Your task to perform on an android device: change the clock display to show seconds Image 0: 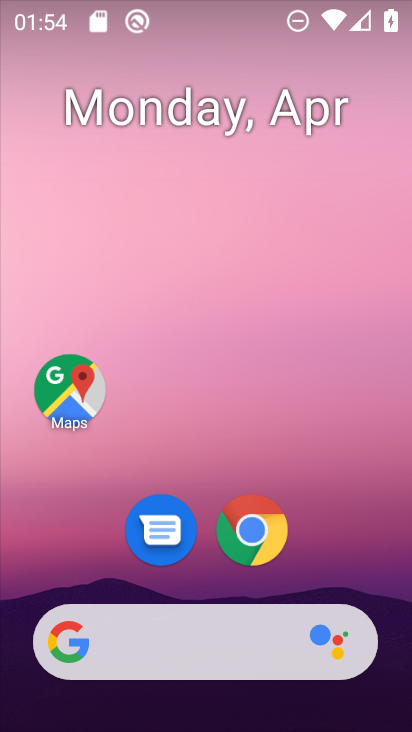
Step 0: drag from (319, 447) to (267, 50)
Your task to perform on an android device: change the clock display to show seconds Image 1: 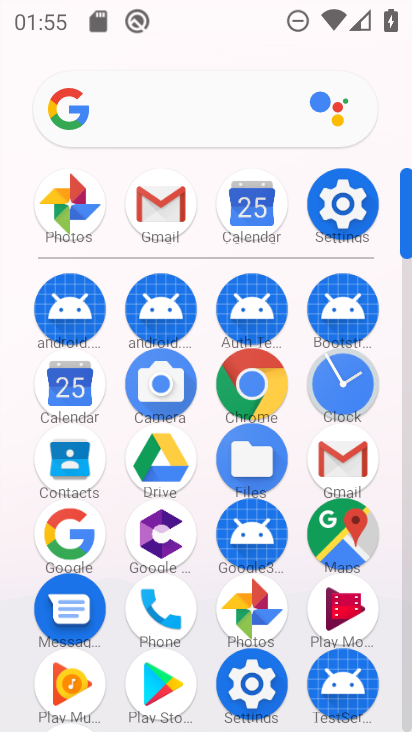
Step 1: click (267, 268)
Your task to perform on an android device: change the clock display to show seconds Image 2: 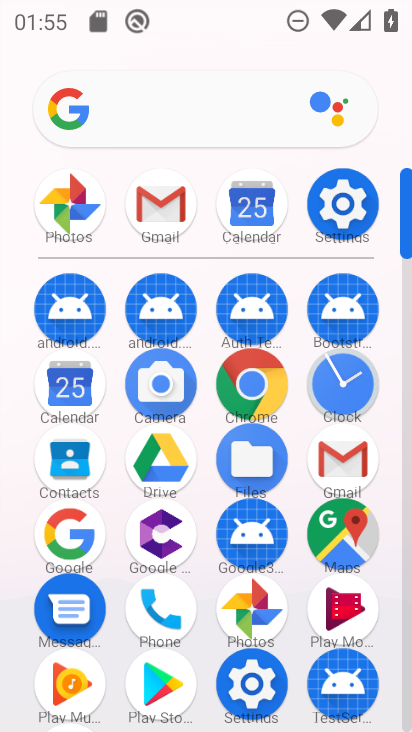
Step 2: click (339, 387)
Your task to perform on an android device: change the clock display to show seconds Image 3: 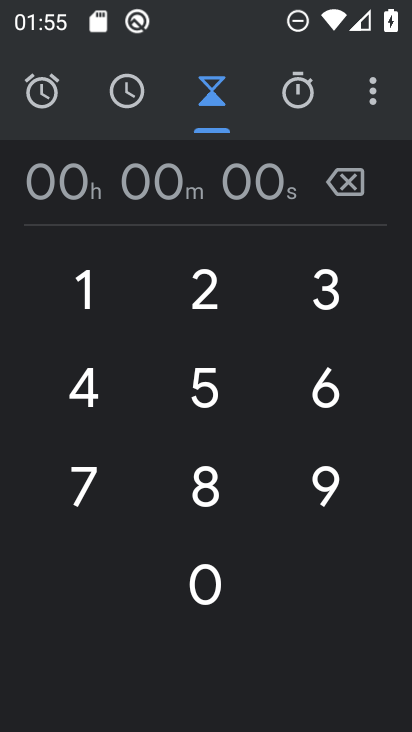
Step 3: click (370, 102)
Your task to perform on an android device: change the clock display to show seconds Image 4: 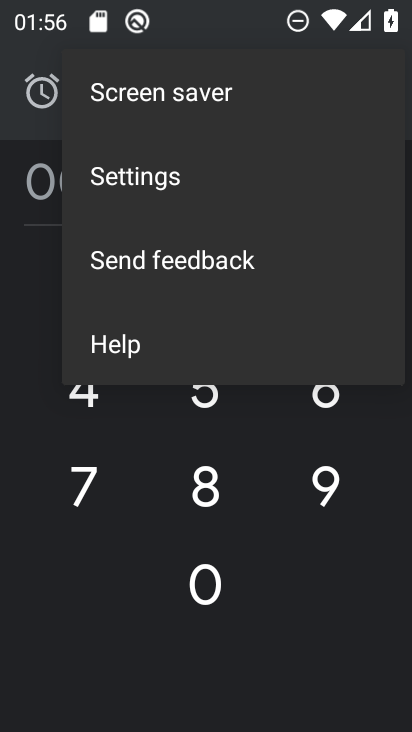
Step 4: click (149, 170)
Your task to perform on an android device: change the clock display to show seconds Image 5: 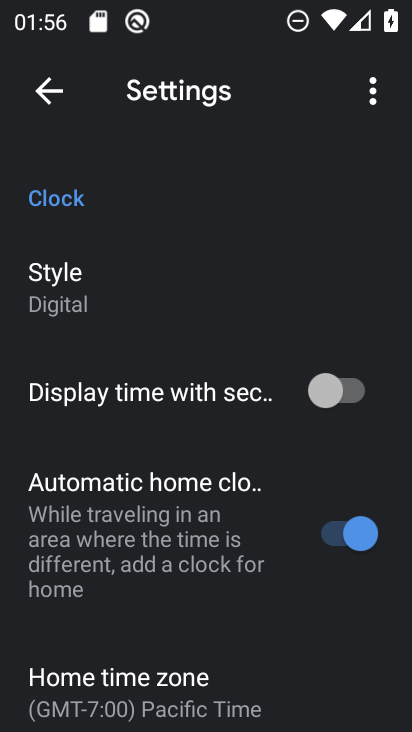
Step 5: click (311, 391)
Your task to perform on an android device: change the clock display to show seconds Image 6: 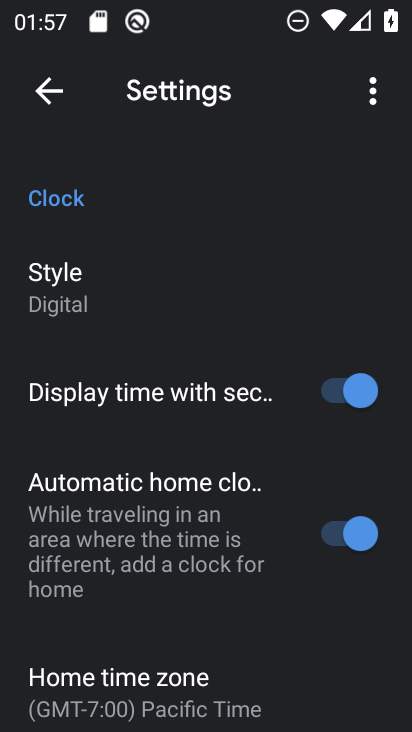
Step 6: task complete